Your task to perform on an android device: toggle data saver in the chrome app Image 0: 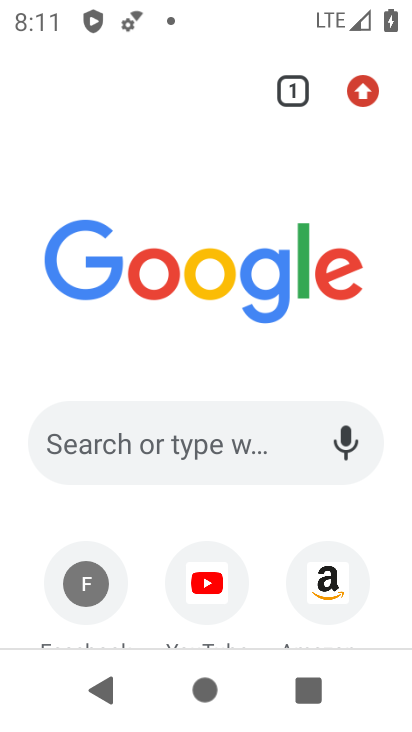
Step 0: click (358, 94)
Your task to perform on an android device: toggle data saver in the chrome app Image 1: 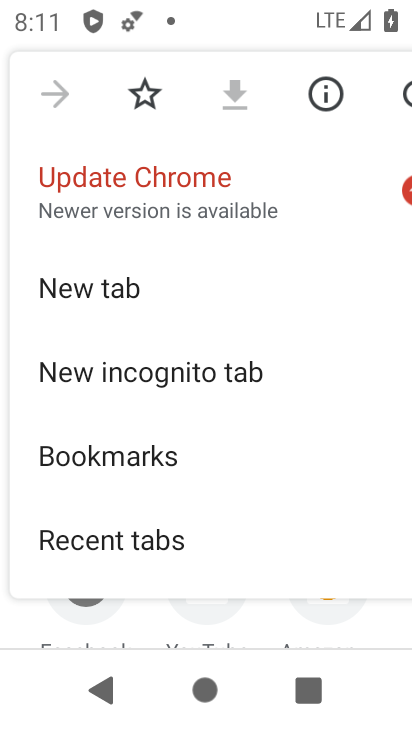
Step 1: drag from (299, 518) to (256, 31)
Your task to perform on an android device: toggle data saver in the chrome app Image 2: 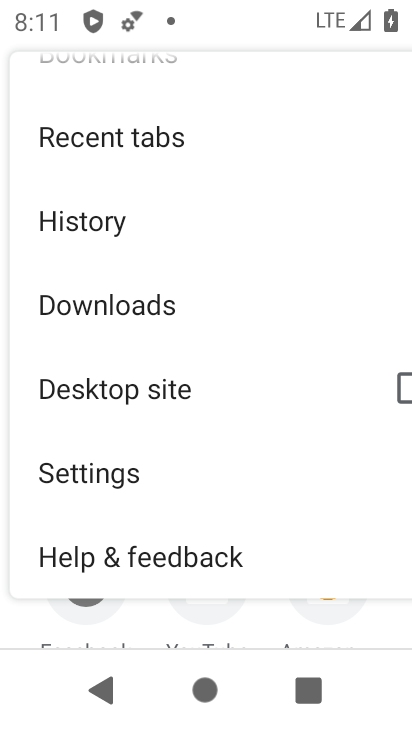
Step 2: click (63, 481)
Your task to perform on an android device: toggle data saver in the chrome app Image 3: 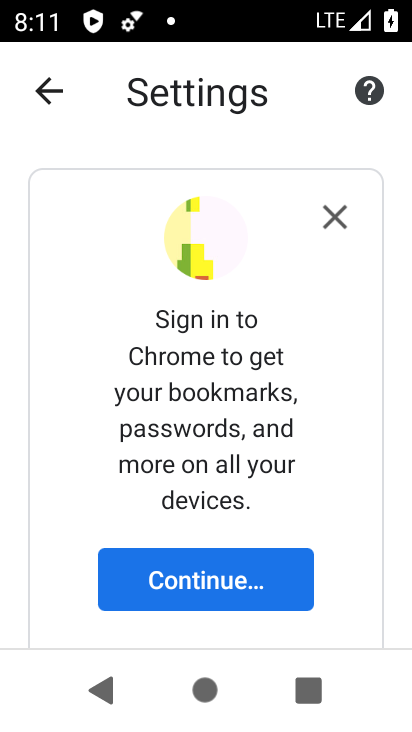
Step 3: drag from (319, 589) to (286, 137)
Your task to perform on an android device: toggle data saver in the chrome app Image 4: 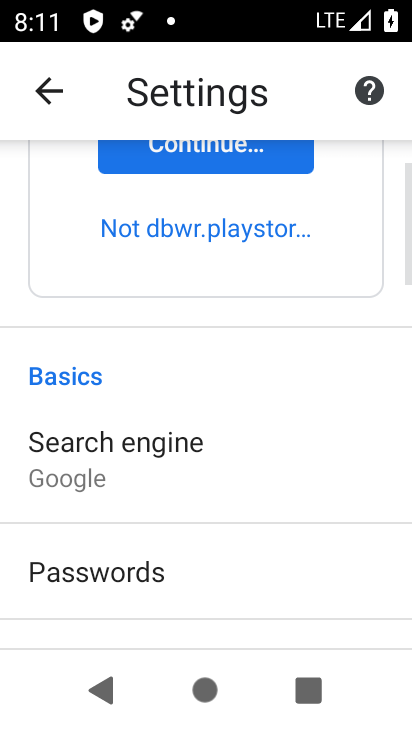
Step 4: drag from (205, 497) to (204, 161)
Your task to perform on an android device: toggle data saver in the chrome app Image 5: 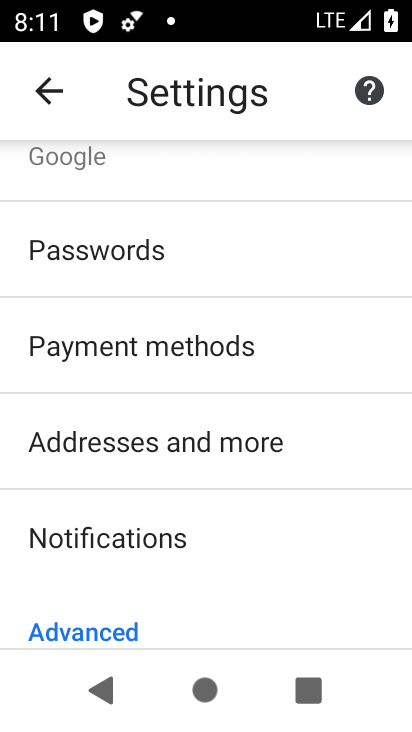
Step 5: drag from (183, 490) to (163, 168)
Your task to perform on an android device: toggle data saver in the chrome app Image 6: 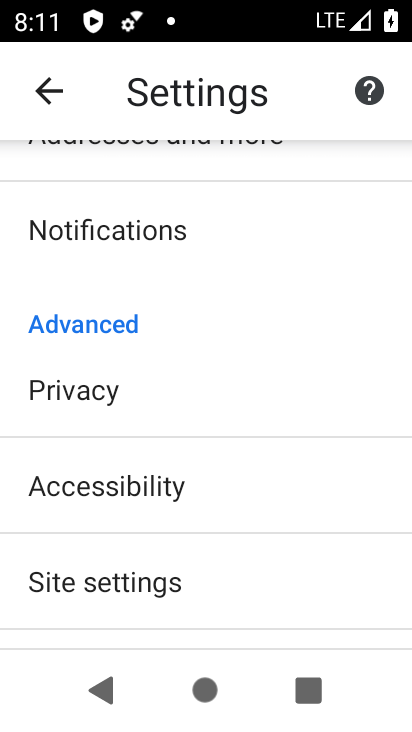
Step 6: drag from (153, 489) to (128, 154)
Your task to perform on an android device: toggle data saver in the chrome app Image 7: 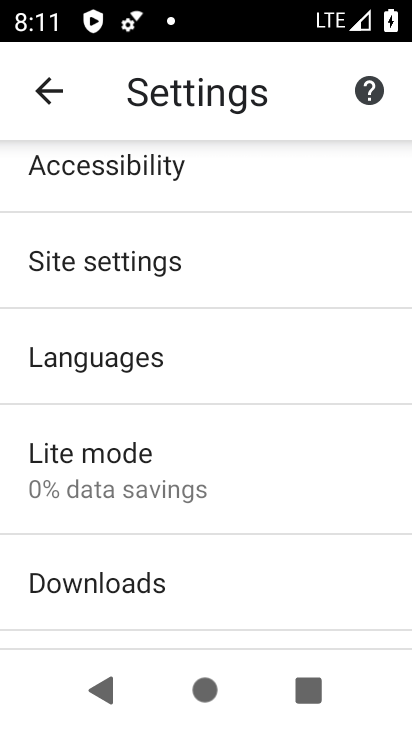
Step 7: click (118, 481)
Your task to perform on an android device: toggle data saver in the chrome app Image 8: 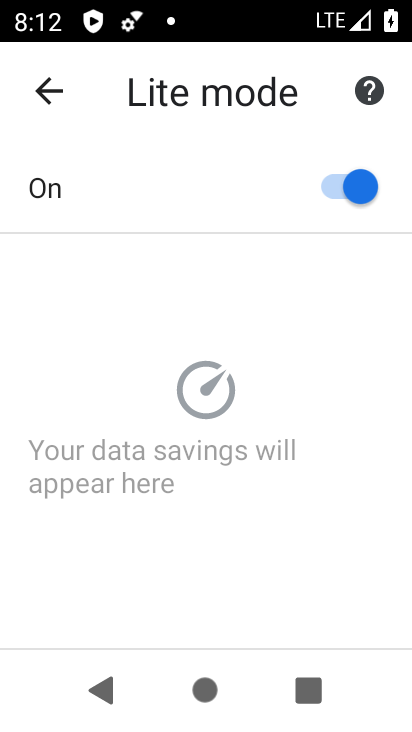
Step 8: click (346, 193)
Your task to perform on an android device: toggle data saver in the chrome app Image 9: 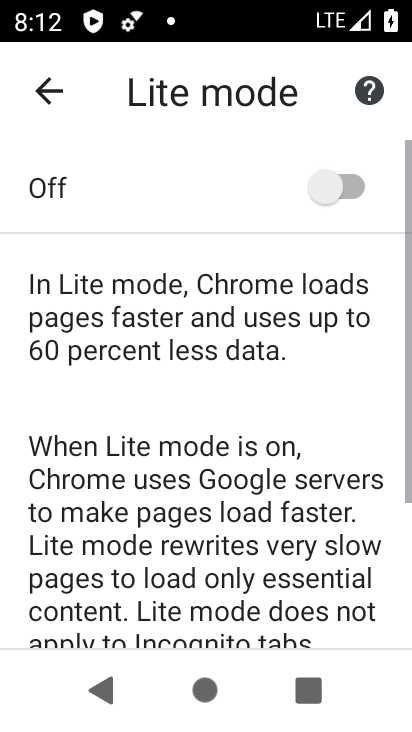
Step 9: task complete